Your task to perform on an android device: Search for sushi restaurants on Maps Image 0: 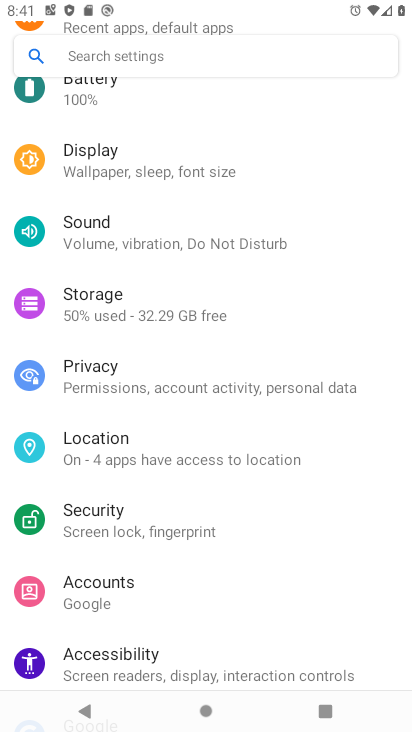
Step 0: press home button
Your task to perform on an android device: Search for sushi restaurants on Maps Image 1: 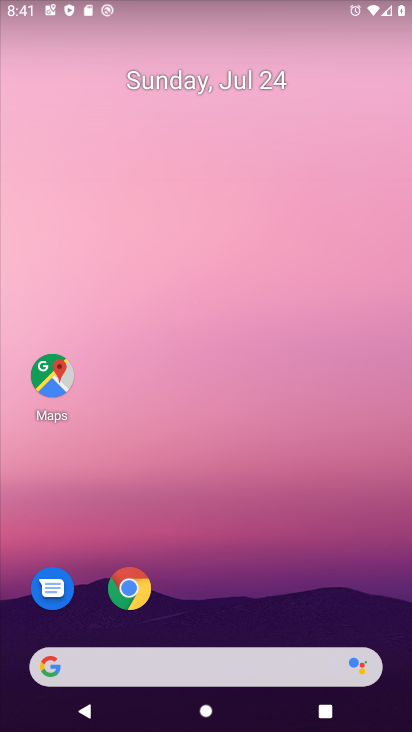
Step 1: drag from (151, 687) to (256, 135)
Your task to perform on an android device: Search for sushi restaurants on Maps Image 2: 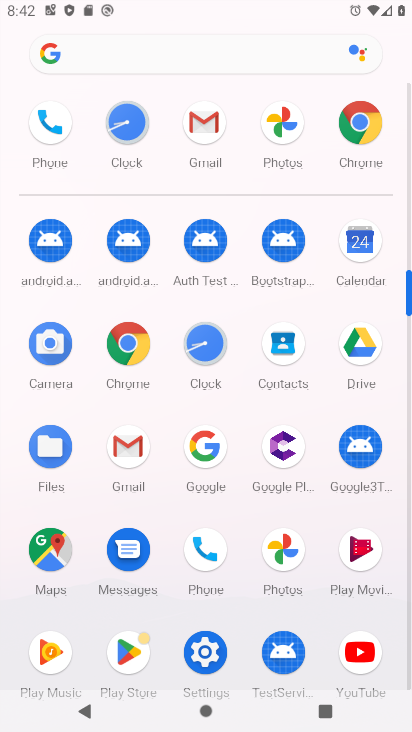
Step 2: click (57, 554)
Your task to perform on an android device: Search for sushi restaurants on Maps Image 3: 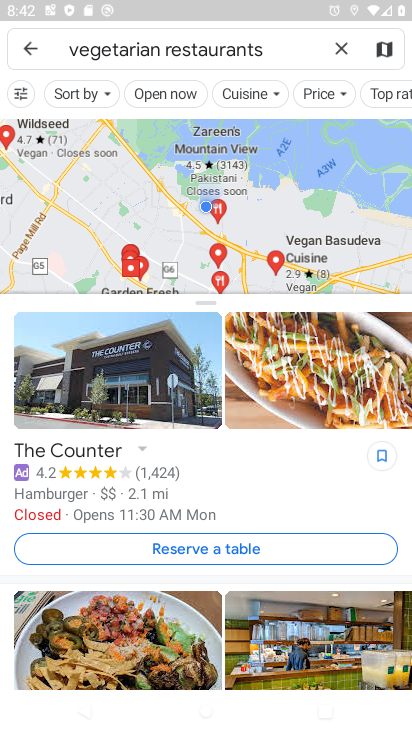
Step 3: click (343, 54)
Your task to perform on an android device: Search for sushi restaurants on Maps Image 4: 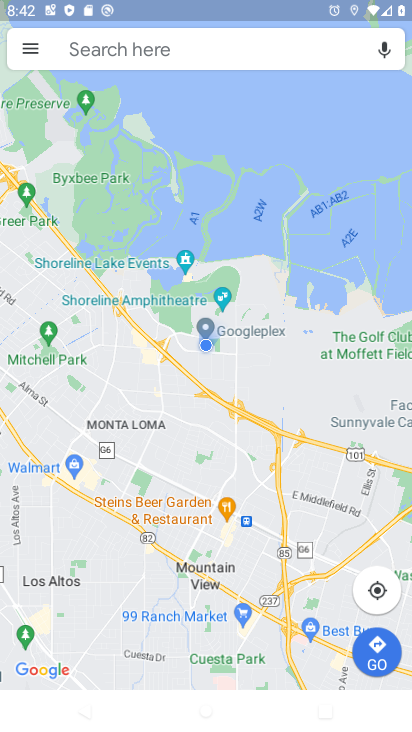
Step 4: click (324, 56)
Your task to perform on an android device: Search for sushi restaurants on Maps Image 5: 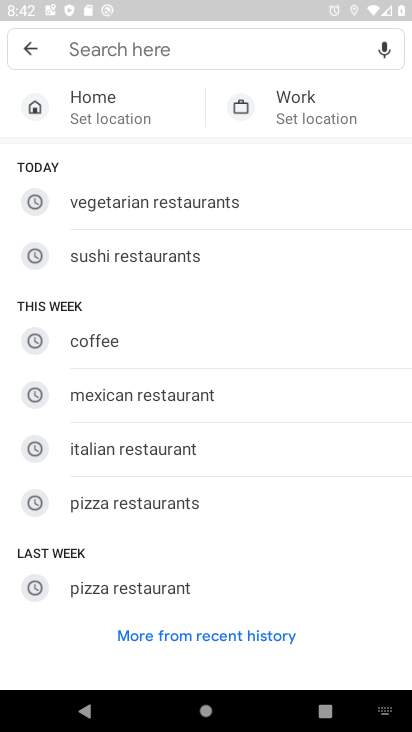
Step 5: click (201, 256)
Your task to perform on an android device: Search for sushi restaurants on Maps Image 6: 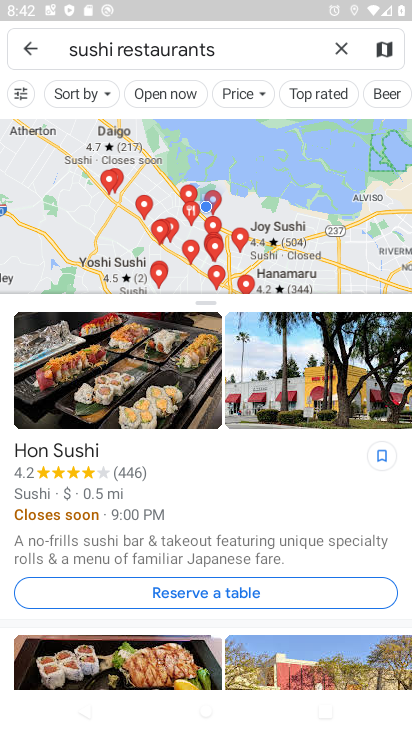
Step 6: task complete